Your task to perform on an android device: turn on notifications settings in the gmail app Image 0: 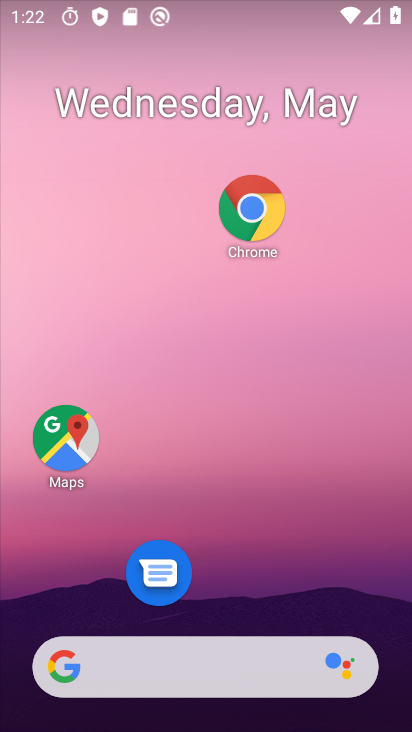
Step 0: drag from (228, 610) to (149, 36)
Your task to perform on an android device: turn on notifications settings in the gmail app Image 1: 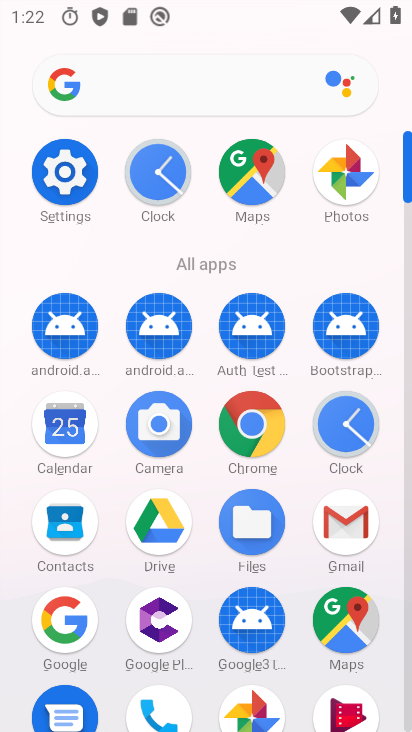
Step 1: click (350, 517)
Your task to perform on an android device: turn on notifications settings in the gmail app Image 2: 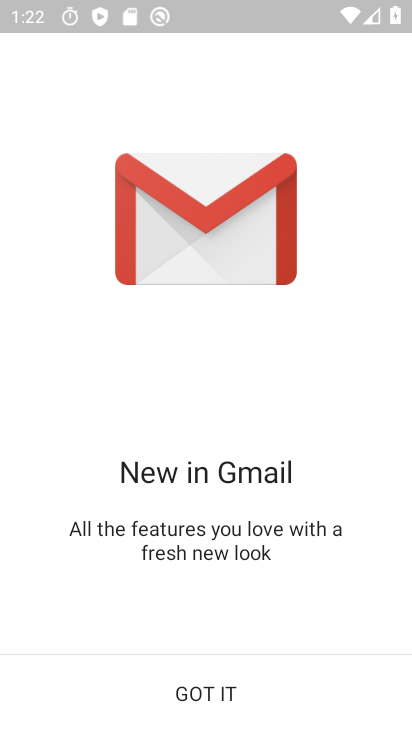
Step 2: click (176, 708)
Your task to perform on an android device: turn on notifications settings in the gmail app Image 3: 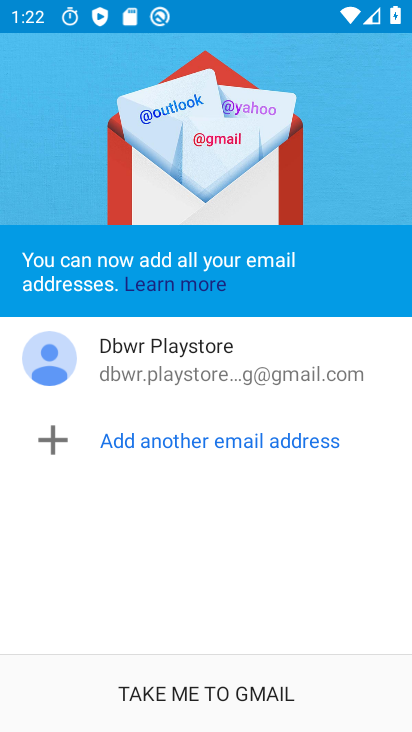
Step 3: click (111, 677)
Your task to perform on an android device: turn on notifications settings in the gmail app Image 4: 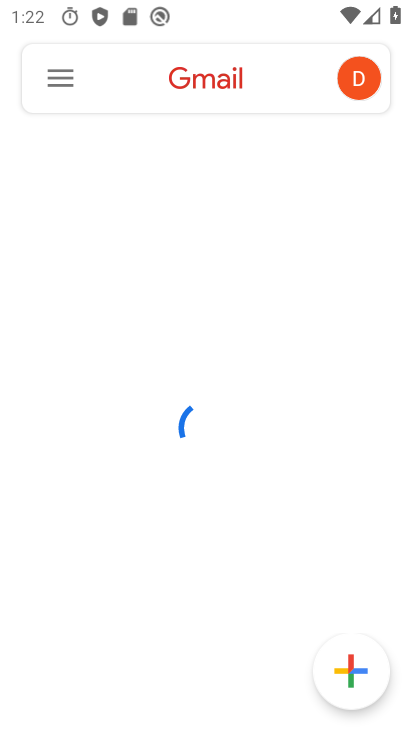
Step 4: click (66, 89)
Your task to perform on an android device: turn on notifications settings in the gmail app Image 5: 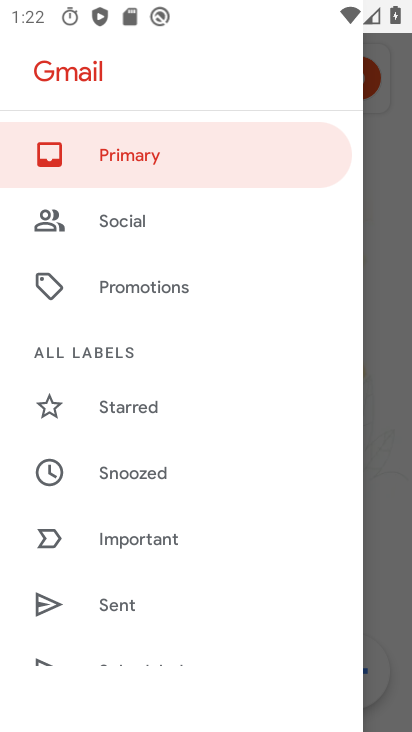
Step 5: drag from (106, 634) to (150, 44)
Your task to perform on an android device: turn on notifications settings in the gmail app Image 6: 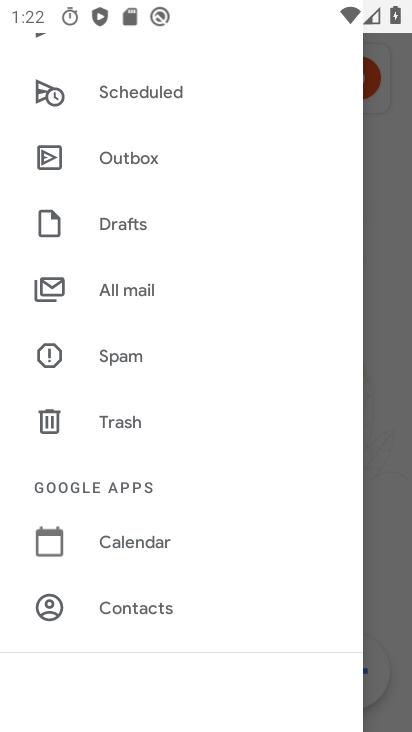
Step 6: drag from (101, 576) to (174, 37)
Your task to perform on an android device: turn on notifications settings in the gmail app Image 7: 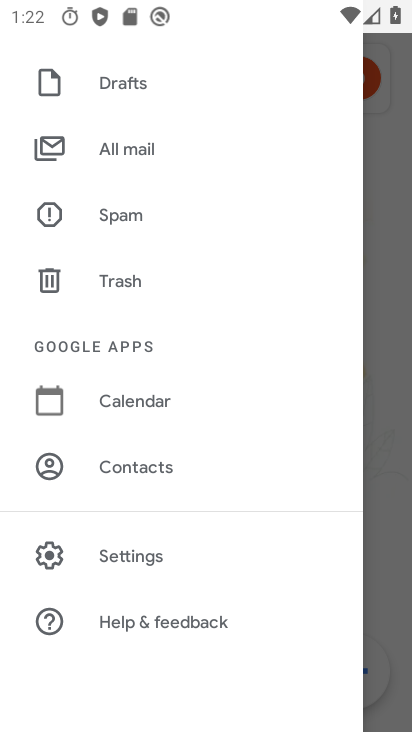
Step 7: click (87, 567)
Your task to perform on an android device: turn on notifications settings in the gmail app Image 8: 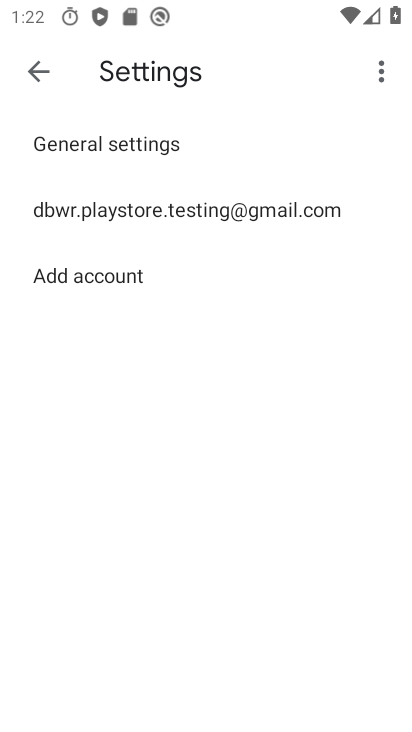
Step 8: click (203, 218)
Your task to perform on an android device: turn on notifications settings in the gmail app Image 9: 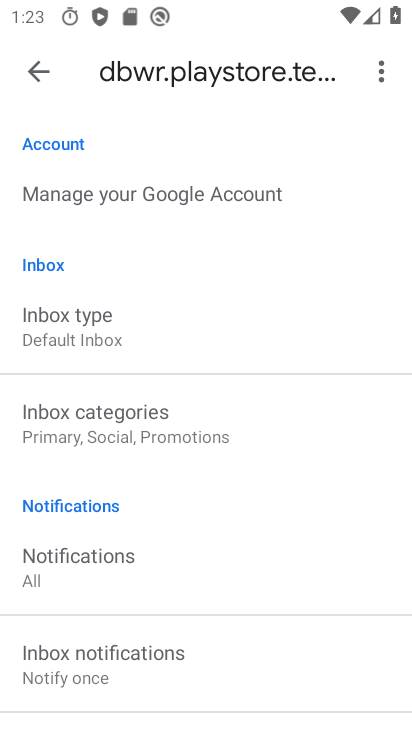
Step 9: click (110, 575)
Your task to perform on an android device: turn on notifications settings in the gmail app Image 10: 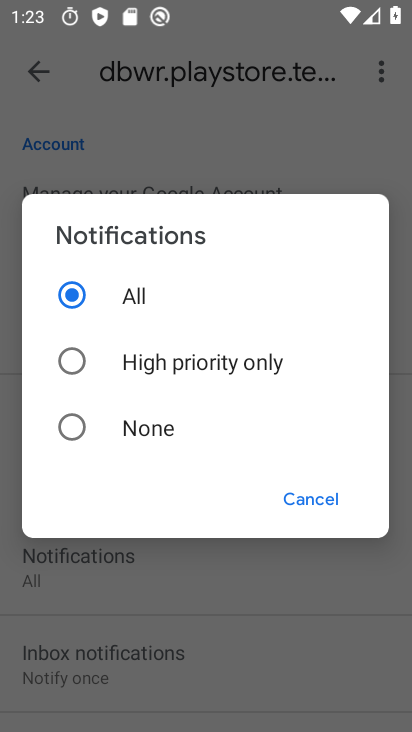
Step 10: task complete